Your task to perform on an android device: toggle airplane mode Image 0: 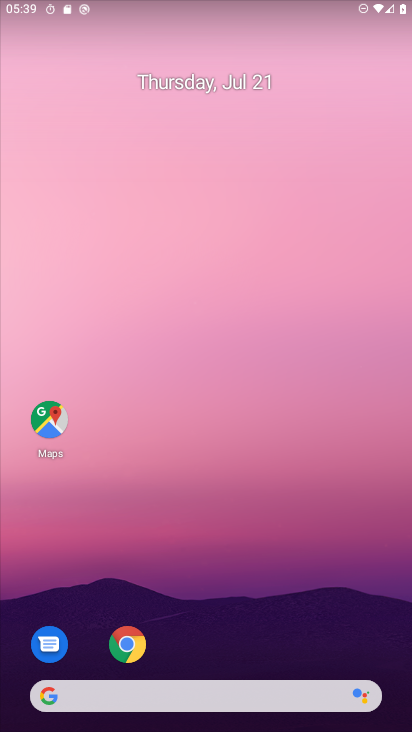
Step 0: drag from (198, 638) to (214, 38)
Your task to perform on an android device: toggle airplane mode Image 1: 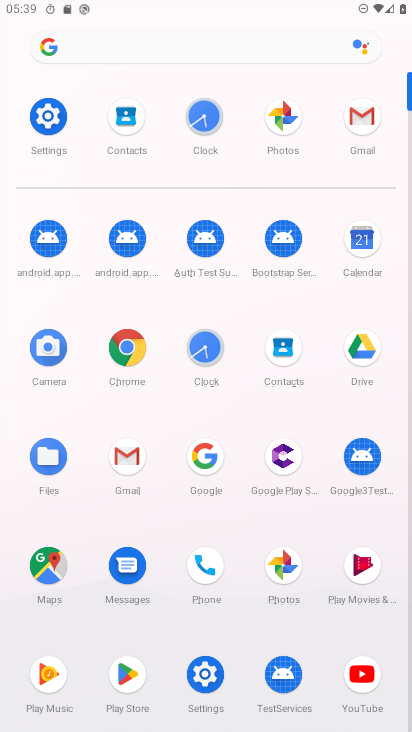
Step 1: click (56, 128)
Your task to perform on an android device: toggle airplane mode Image 2: 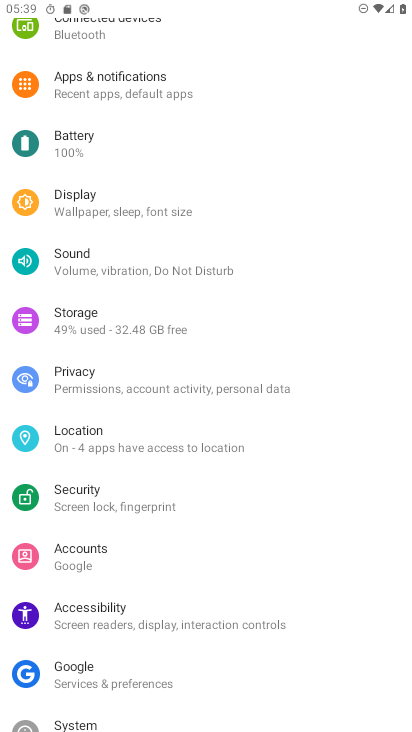
Step 2: drag from (200, 413) to (204, 565)
Your task to perform on an android device: toggle airplane mode Image 3: 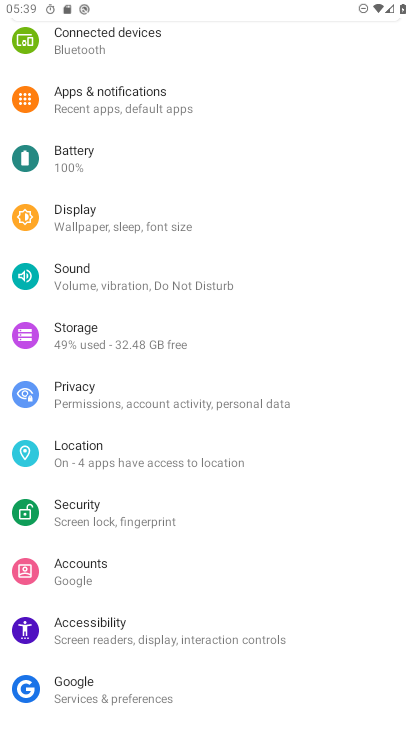
Step 3: drag from (204, 357) to (203, 474)
Your task to perform on an android device: toggle airplane mode Image 4: 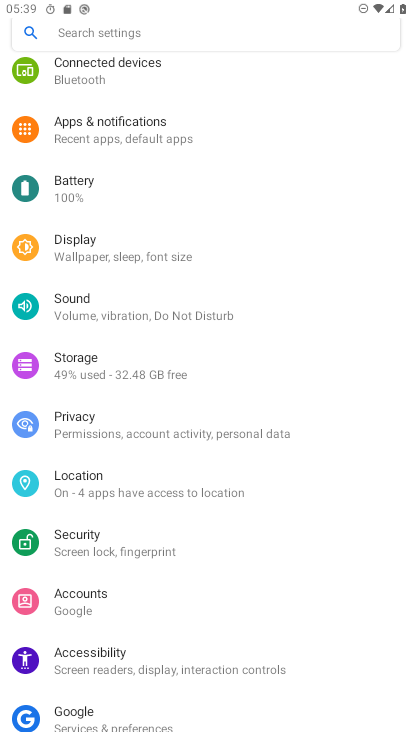
Step 4: drag from (195, 169) to (215, 424)
Your task to perform on an android device: toggle airplane mode Image 5: 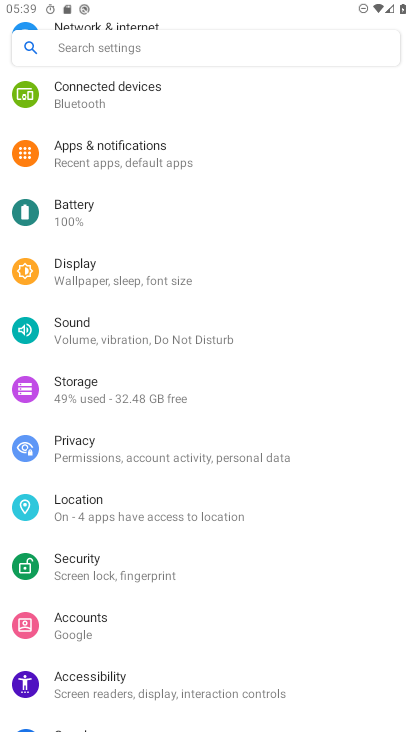
Step 5: drag from (183, 129) to (222, 532)
Your task to perform on an android device: toggle airplane mode Image 6: 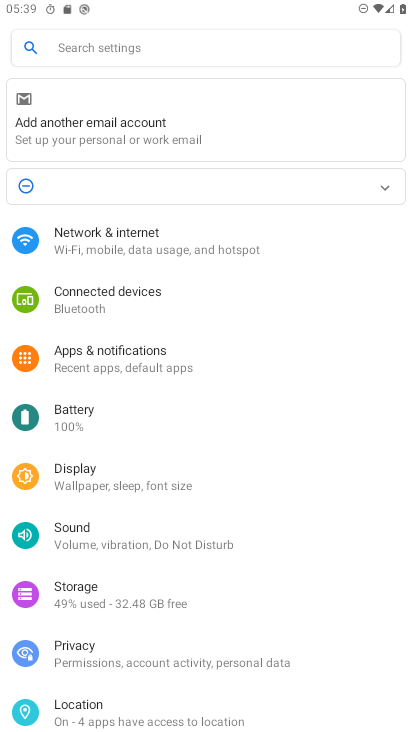
Step 6: click (164, 233)
Your task to perform on an android device: toggle airplane mode Image 7: 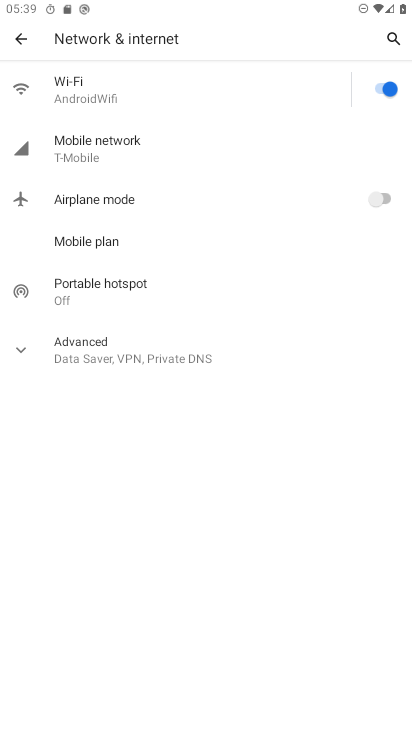
Step 7: click (382, 198)
Your task to perform on an android device: toggle airplane mode Image 8: 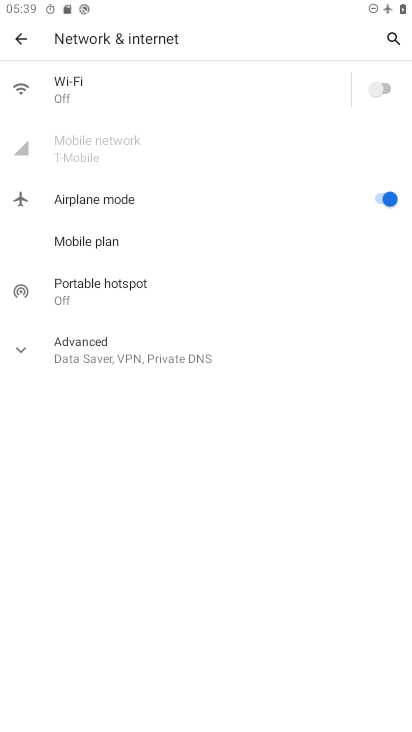
Step 8: task complete